Your task to perform on an android device: check out phone information Image 0: 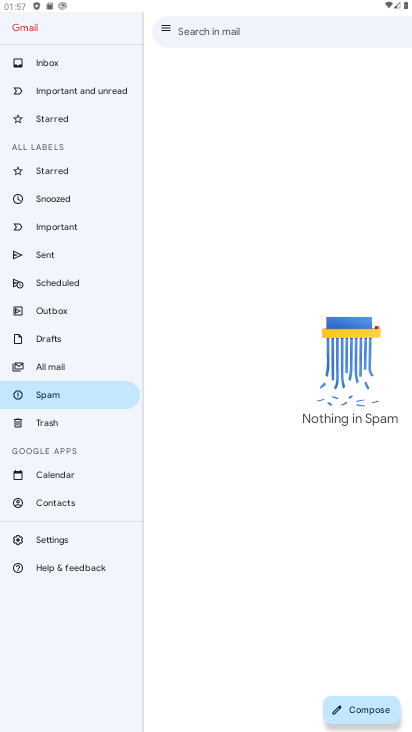
Step 0: press home button
Your task to perform on an android device: check out phone information Image 1: 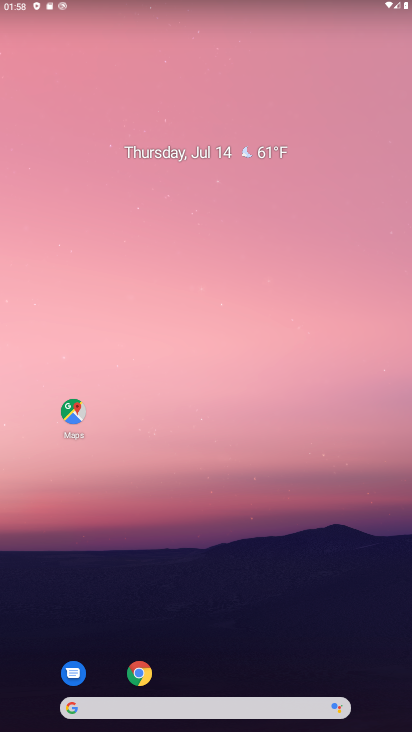
Step 1: click (322, 679)
Your task to perform on an android device: check out phone information Image 2: 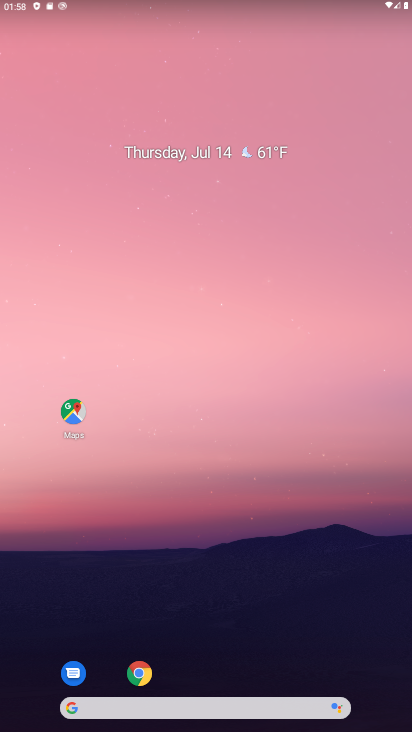
Step 2: drag from (322, 679) to (292, 36)
Your task to perform on an android device: check out phone information Image 3: 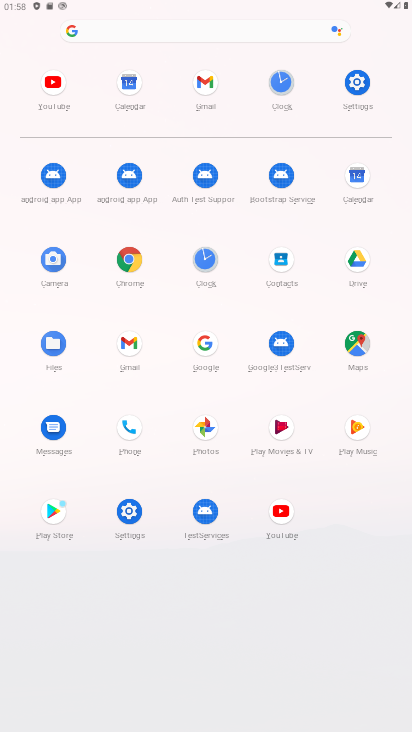
Step 3: click (358, 82)
Your task to perform on an android device: check out phone information Image 4: 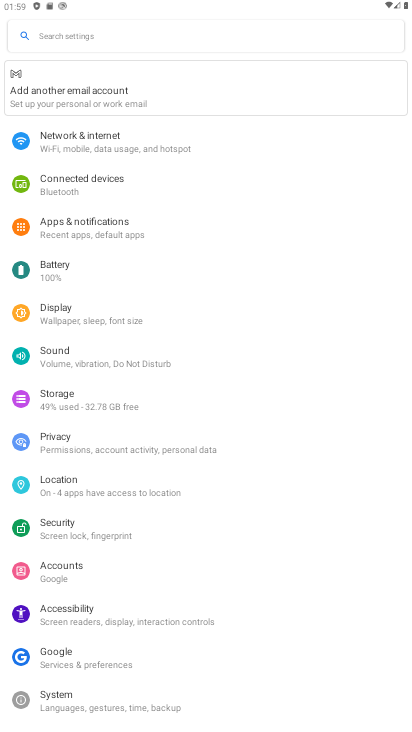
Step 4: click (180, 702)
Your task to perform on an android device: check out phone information Image 5: 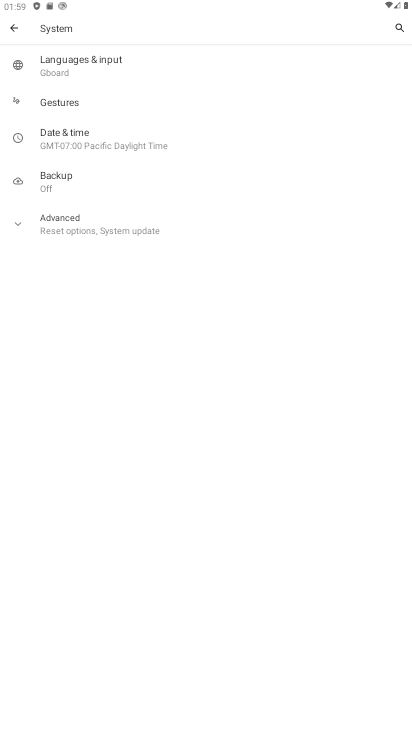
Step 5: task complete